Your task to perform on an android device: Open Maps and search for coffee Image 0: 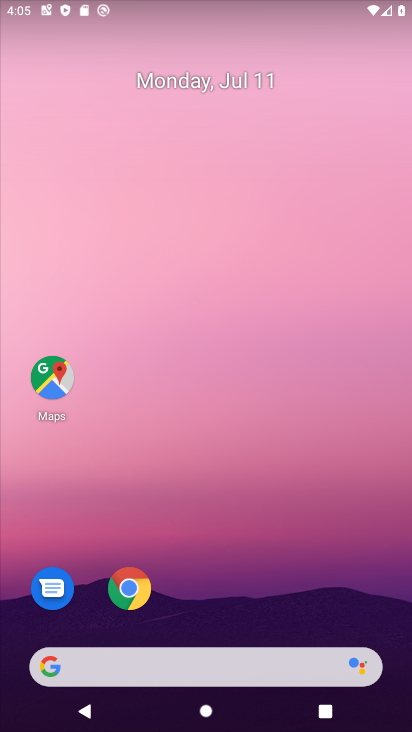
Step 0: drag from (343, 591) to (363, 177)
Your task to perform on an android device: Open Maps and search for coffee Image 1: 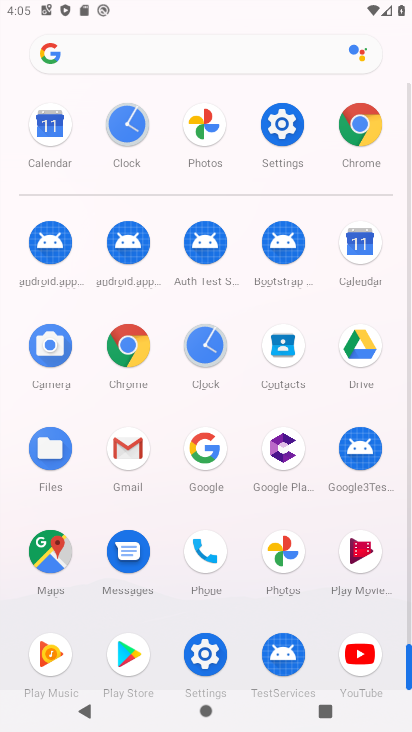
Step 1: click (50, 552)
Your task to perform on an android device: Open Maps and search for coffee Image 2: 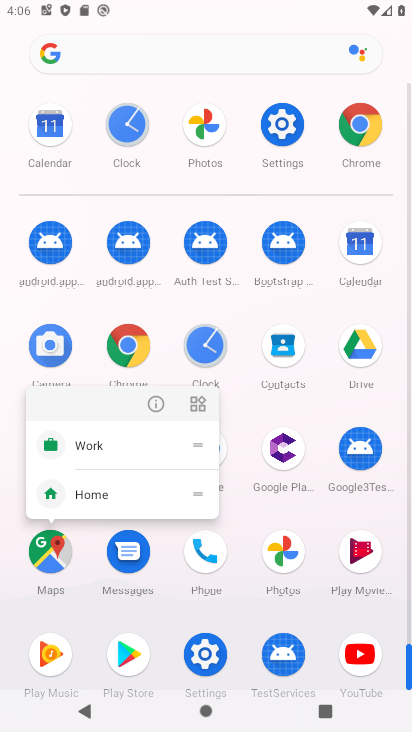
Step 2: click (56, 553)
Your task to perform on an android device: Open Maps and search for coffee Image 3: 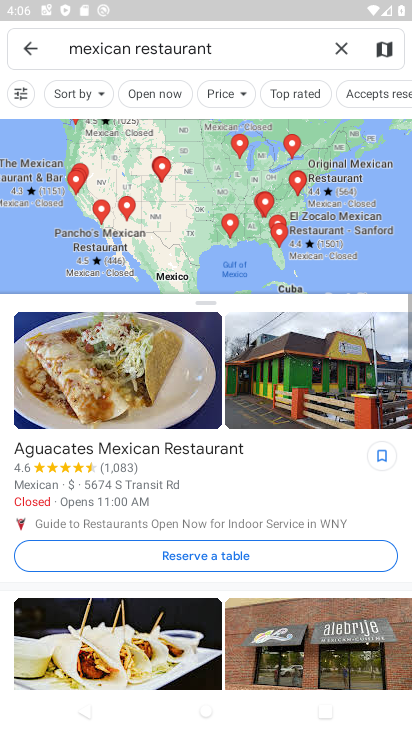
Step 3: press back button
Your task to perform on an android device: Open Maps and search for coffee Image 4: 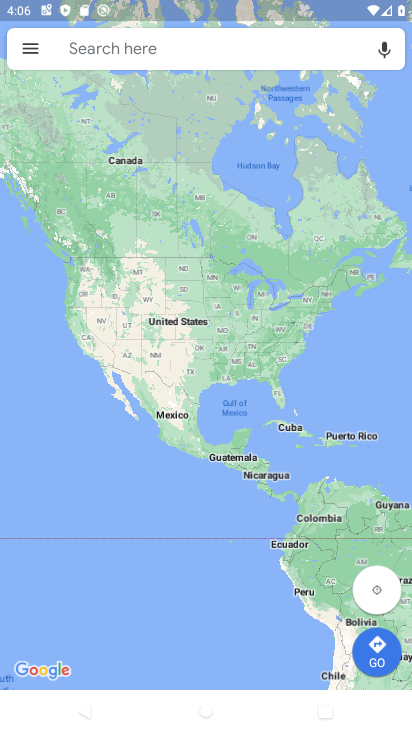
Step 4: click (187, 49)
Your task to perform on an android device: Open Maps and search for coffee Image 5: 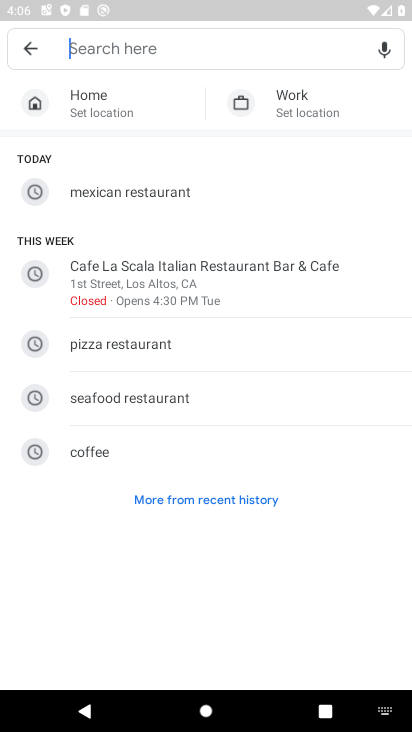
Step 5: type "coffee"
Your task to perform on an android device: Open Maps and search for coffee Image 6: 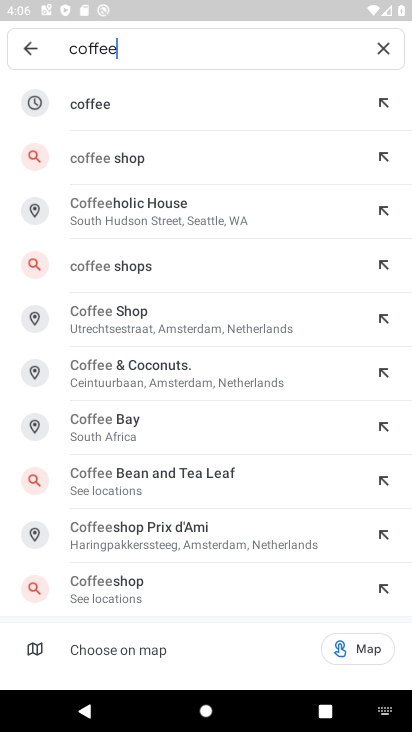
Step 6: click (129, 104)
Your task to perform on an android device: Open Maps and search for coffee Image 7: 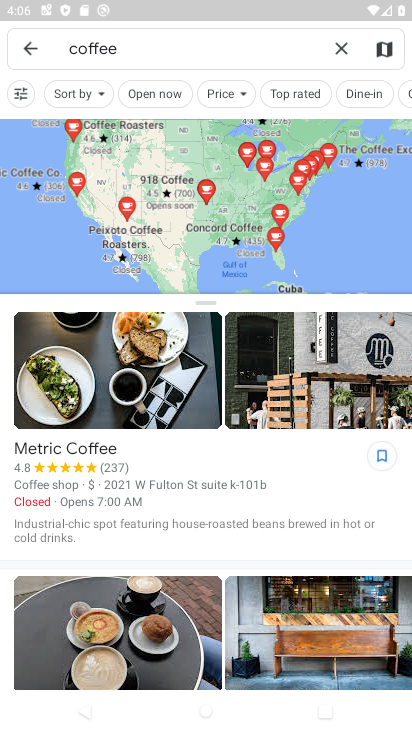
Step 7: task complete